Your task to perform on an android device: Do I have any events tomorrow? Image 0: 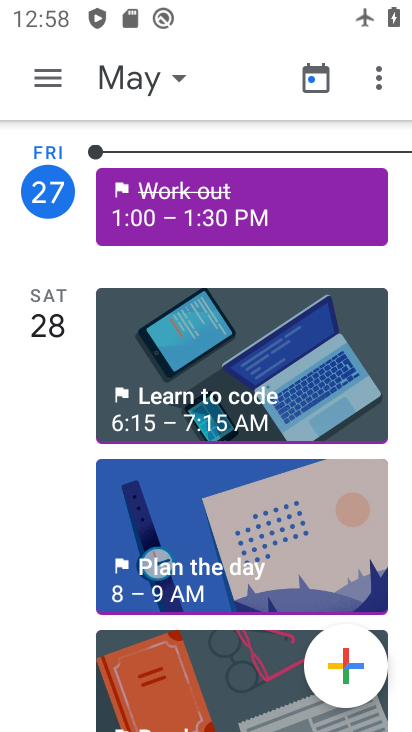
Step 0: task complete